Your task to perform on an android device: turn off notifications in google photos Image 0: 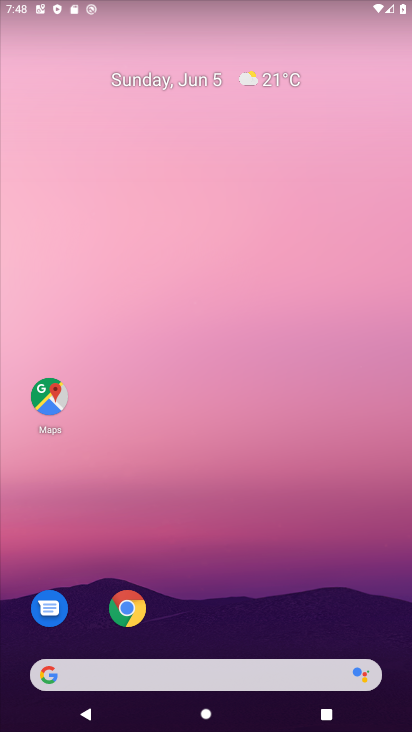
Step 0: press home button
Your task to perform on an android device: turn off notifications in google photos Image 1: 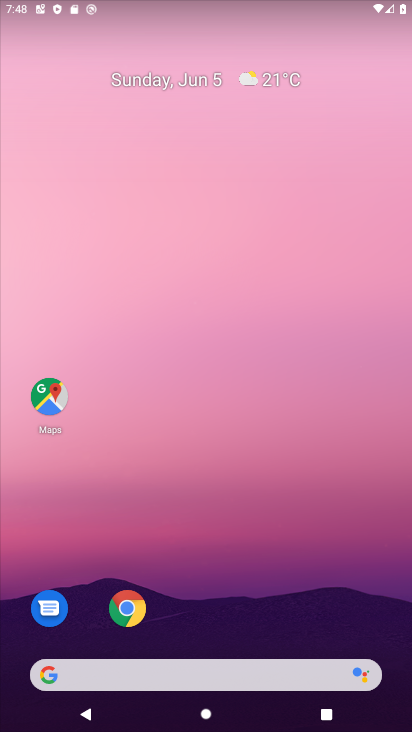
Step 1: drag from (361, 586) to (301, 182)
Your task to perform on an android device: turn off notifications in google photos Image 2: 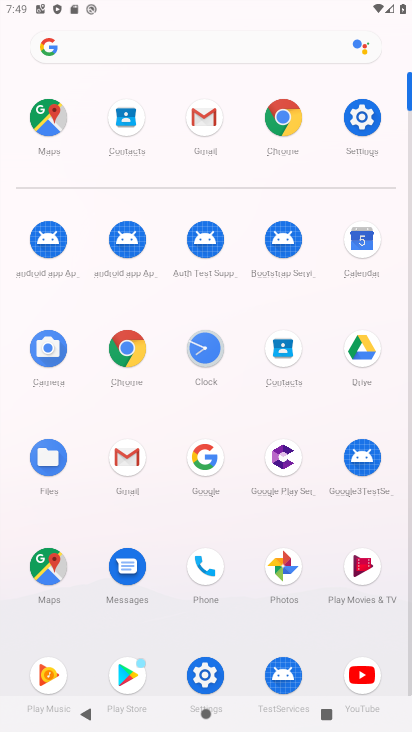
Step 2: click (287, 576)
Your task to perform on an android device: turn off notifications in google photos Image 3: 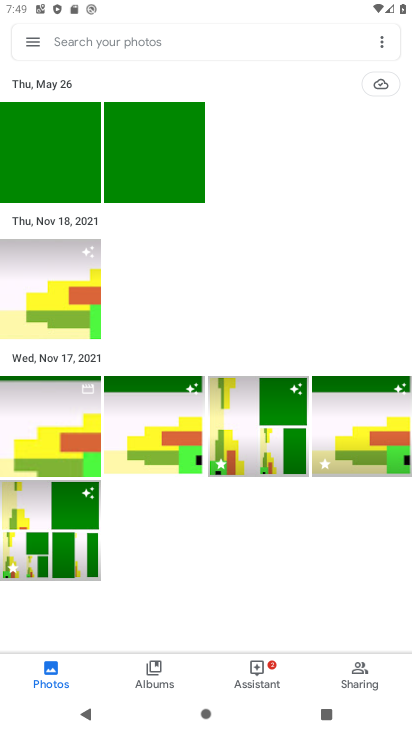
Step 3: click (30, 44)
Your task to perform on an android device: turn off notifications in google photos Image 4: 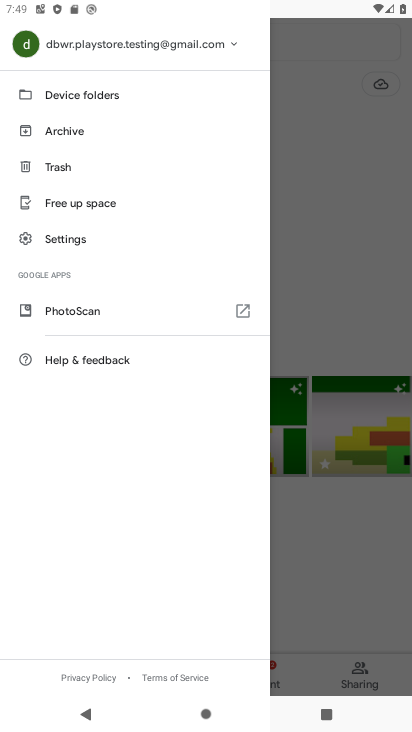
Step 4: click (96, 243)
Your task to perform on an android device: turn off notifications in google photos Image 5: 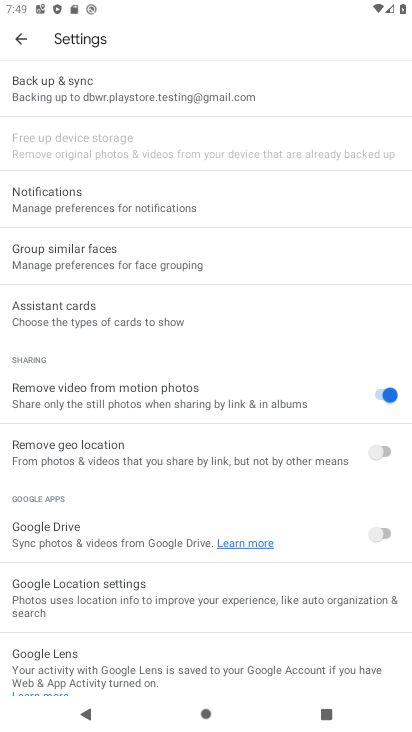
Step 5: click (113, 204)
Your task to perform on an android device: turn off notifications in google photos Image 6: 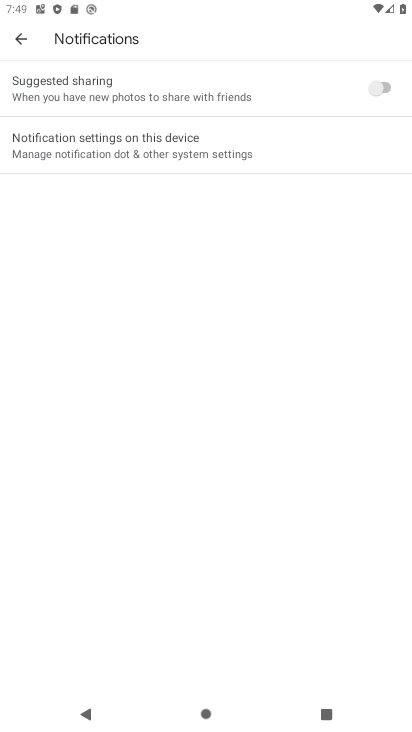
Step 6: click (150, 146)
Your task to perform on an android device: turn off notifications in google photos Image 7: 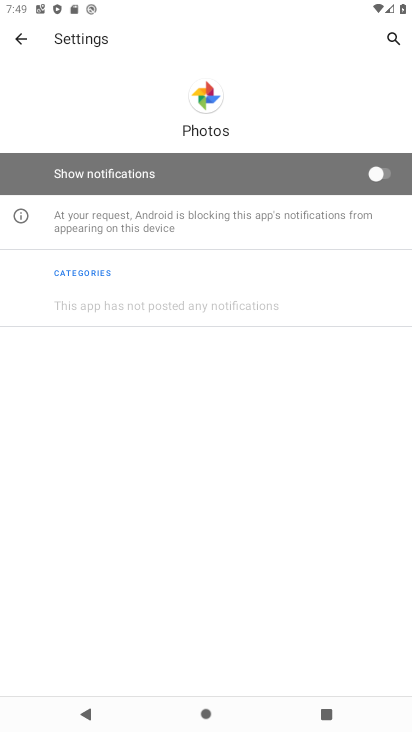
Step 7: task complete